Your task to perform on an android device: turn off improve location accuracy Image 0: 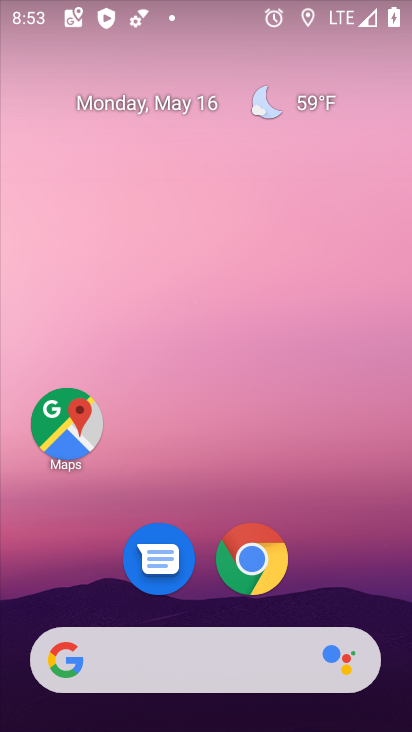
Step 0: drag from (353, 572) to (344, 149)
Your task to perform on an android device: turn off improve location accuracy Image 1: 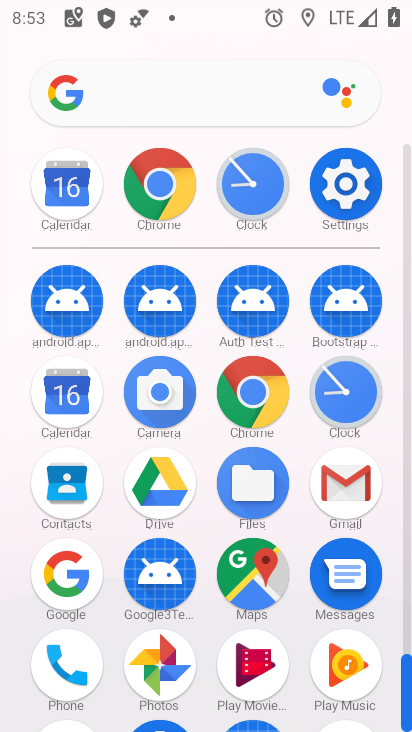
Step 1: click (358, 205)
Your task to perform on an android device: turn off improve location accuracy Image 2: 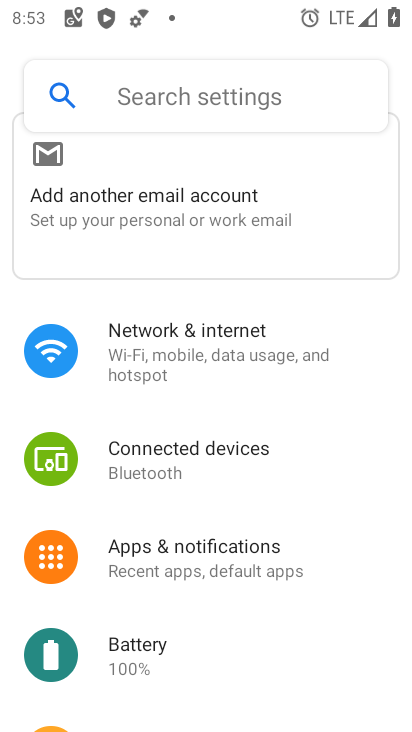
Step 2: drag from (299, 616) to (328, 361)
Your task to perform on an android device: turn off improve location accuracy Image 3: 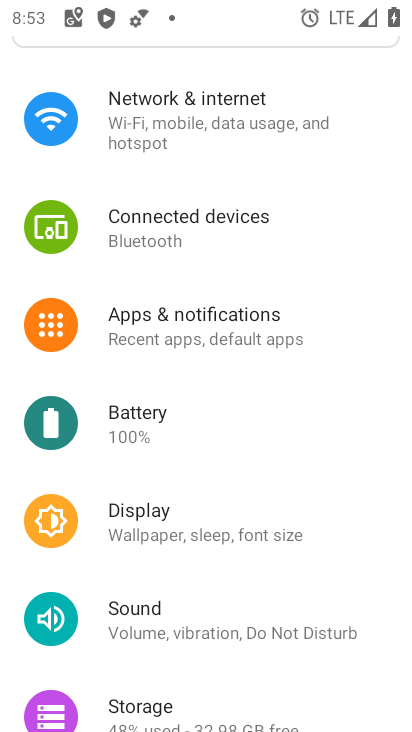
Step 3: drag from (257, 693) to (320, 395)
Your task to perform on an android device: turn off improve location accuracy Image 4: 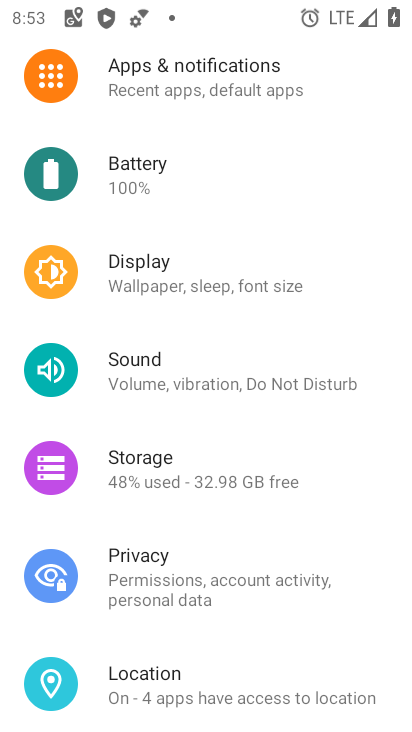
Step 4: click (183, 681)
Your task to perform on an android device: turn off improve location accuracy Image 5: 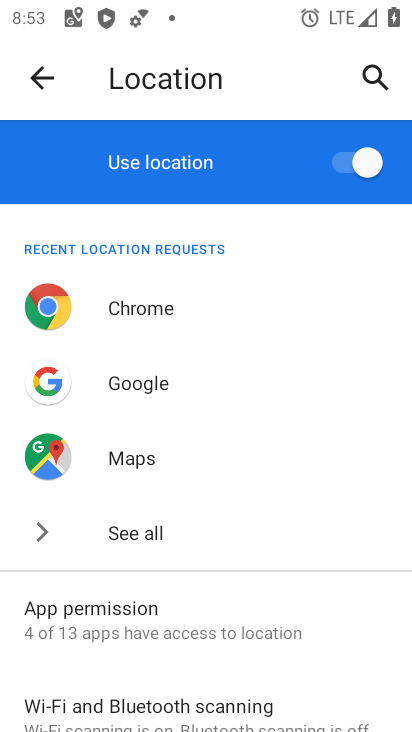
Step 5: drag from (306, 670) to (337, 407)
Your task to perform on an android device: turn off improve location accuracy Image 6: 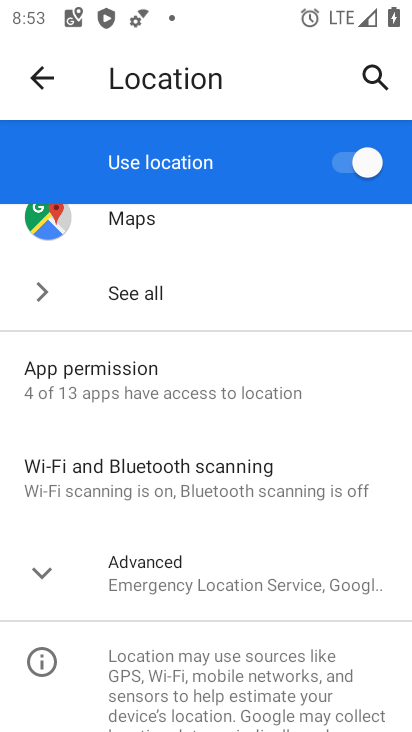
Step 6: click (308, 568)
Your task to perform on an android device: turn off improve location accuracy Image 7: 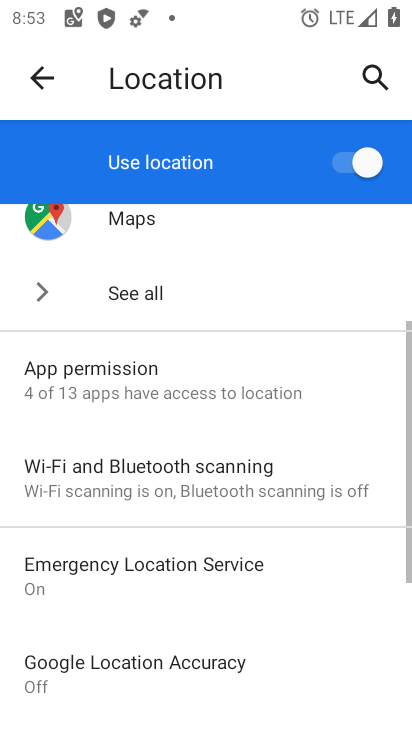
Step 7: drag from (294, 669) to (340, 370)
Your task to perform on an android device: turn off improve location accuracy Image 8: 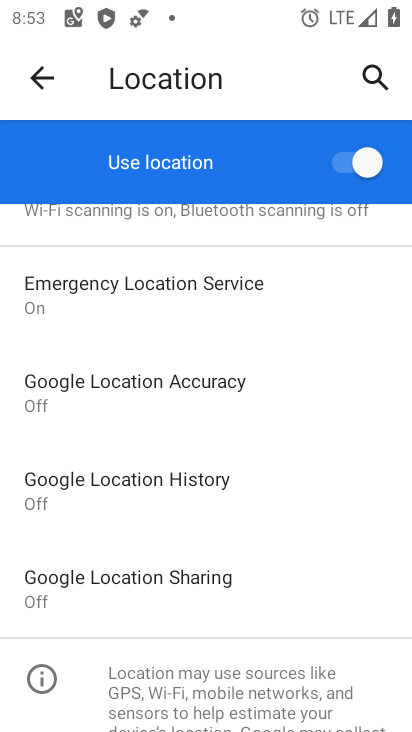
Step 8: click (160, 391)
Your task to perform on an android device: turn off improve location accuracy Image 9: 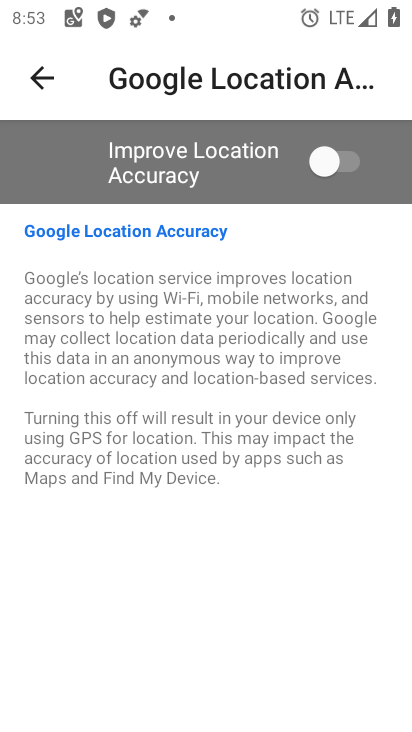
Step 9: task complete